Your task to perform on an android device: Search for vegetarian restaurants on Maps Image 0: 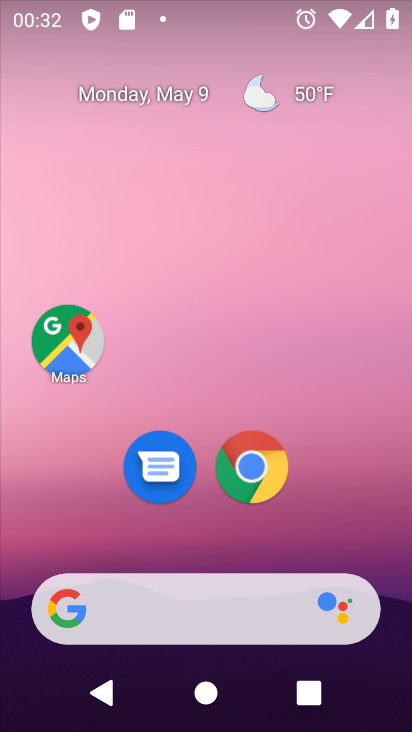
Step 0: drag from (207, 559) to (250, 83)
Your task to perform on an android device: Search for vegetarian restaurants on Maps Image 1: 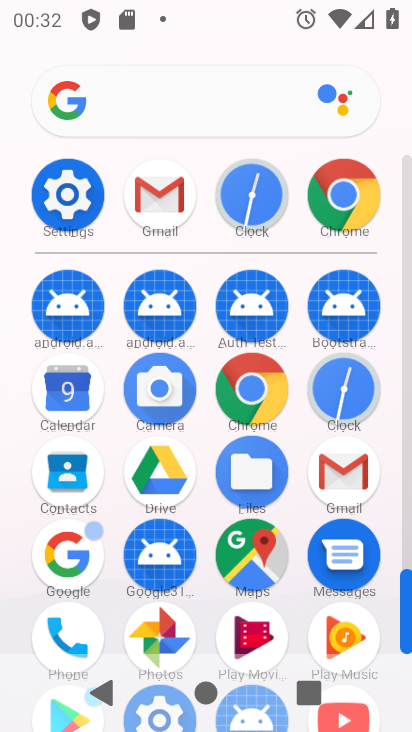
Step 1: click (249, 550)
Your task to perform on an android device: Search for vegetarian restaurants on Maps Image 2: 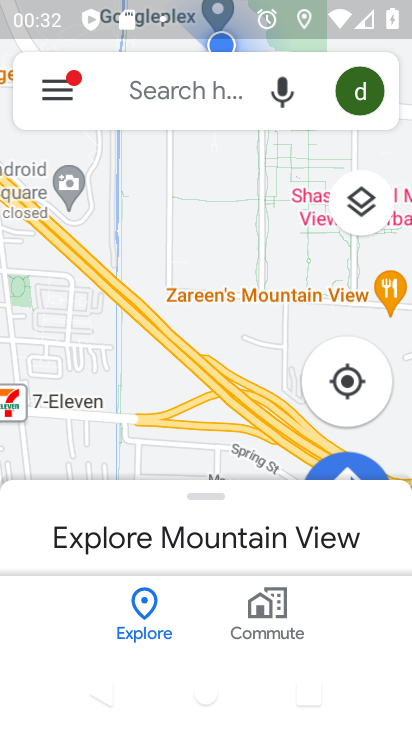
Step 2: click (174, 83)
Your task to perform on an android device: Search for vegetarian restaurants on Maps Image 3: 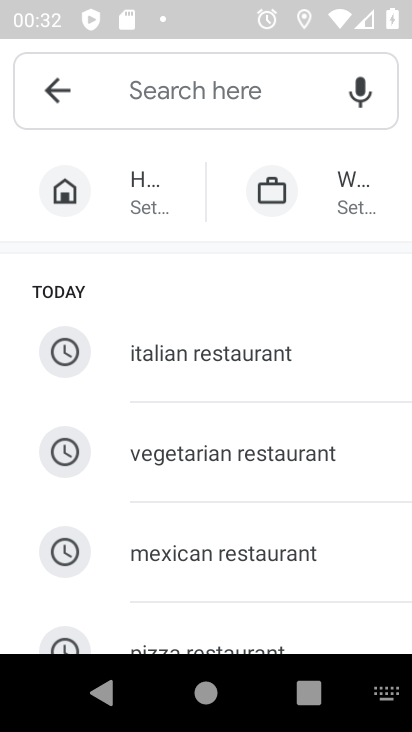
Step 3: click (209, 471)
Your task to perform on an android device: Search for vegetarian restaurants on Maps Image 4: 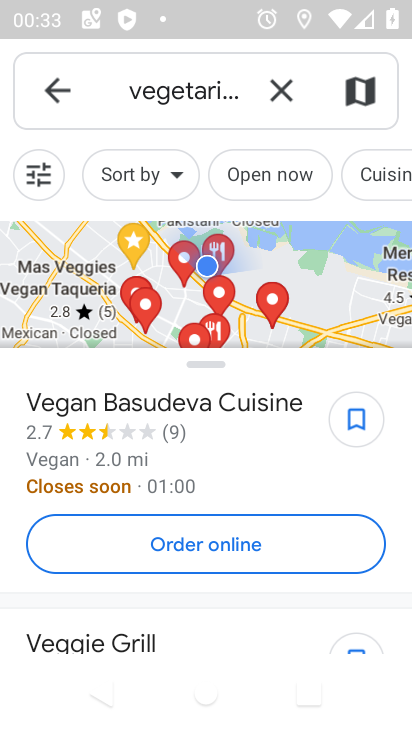
Step 4: task complete